Your task to perform on an android device: See recent photos Image 0: 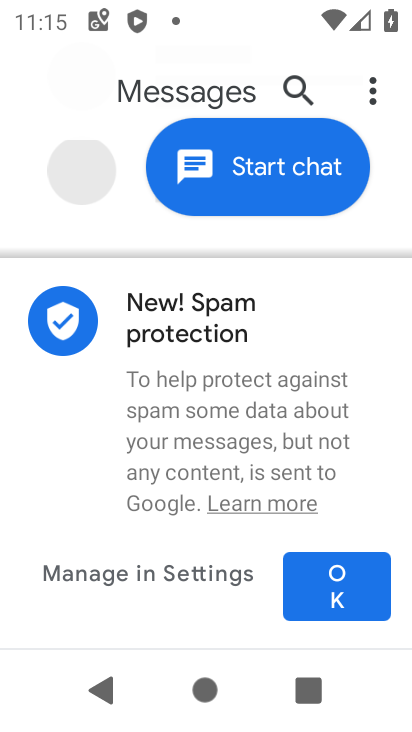
Step 0: press home button
Your task to perform on an android device: See recent photos Image 1: 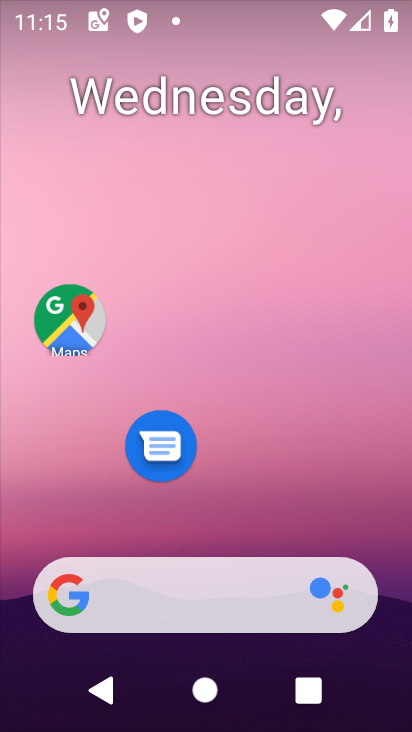
Step 1: drag from (211, 525) to (191, 70)
Your task to perform on an android device: See recent photos Image 2: 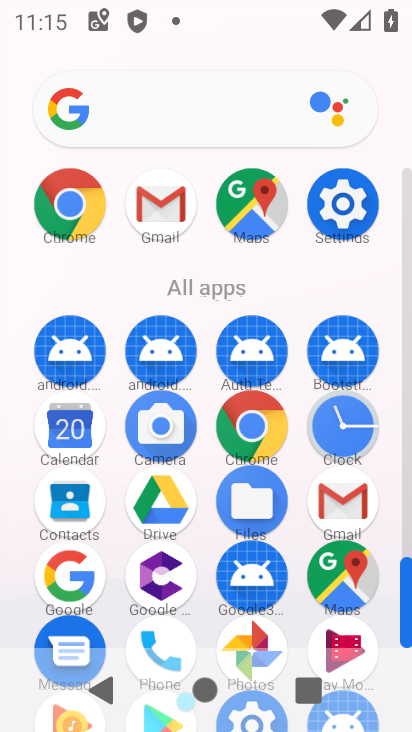
Step 2: drag from (206, 623) to (205, 352)
Your task to perform on an android device: See recent photos Image 3: 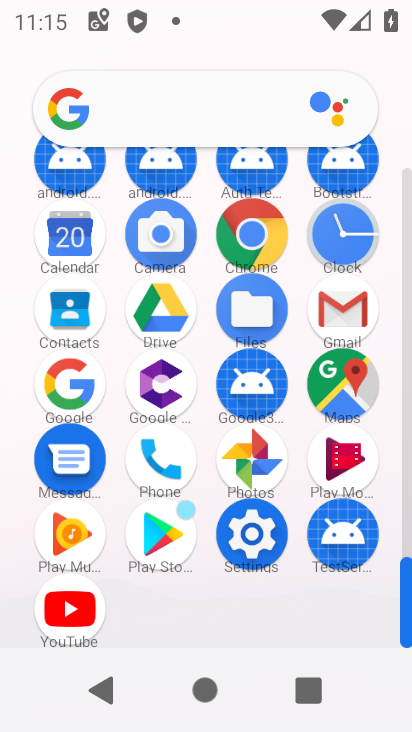
Step 3: click (252, 457)
Your task to perform on an android device: See recent photos Image 4: 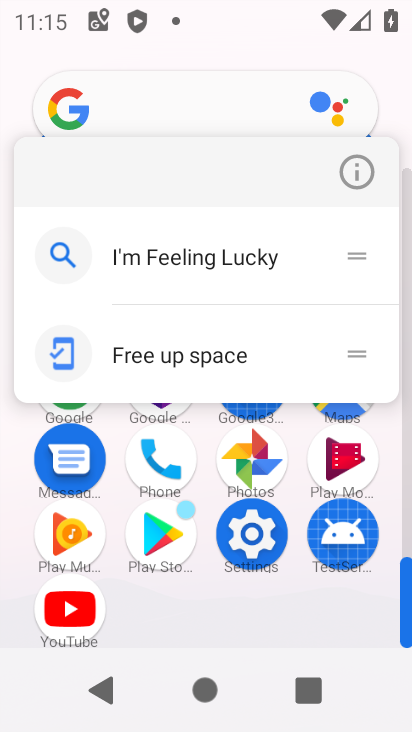
Step 4: click (252, 457)
Your task to perform on an android device: See recent photos Image 5: 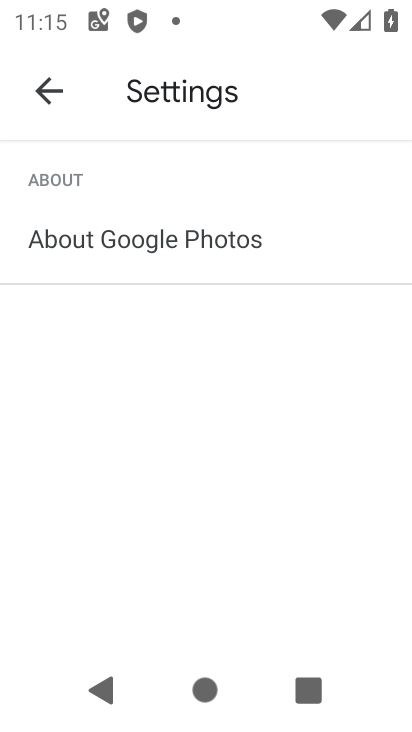
Step 5: press back button
Your task to perform on an android device: See recent photos Image 6: 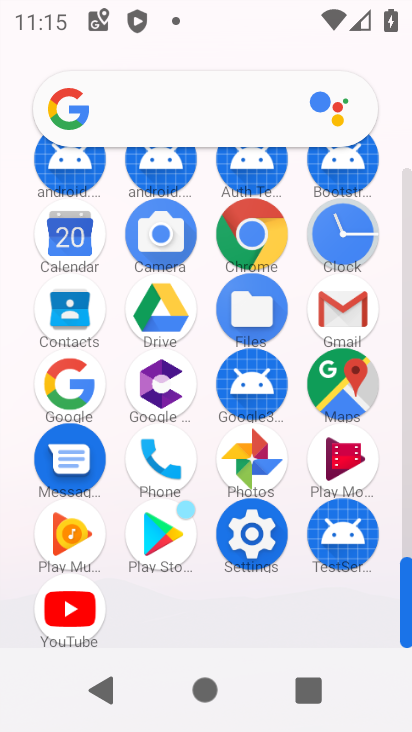
Step 6: click (232, 468)
Your task to perform on an android device: See recent photos Image 7: 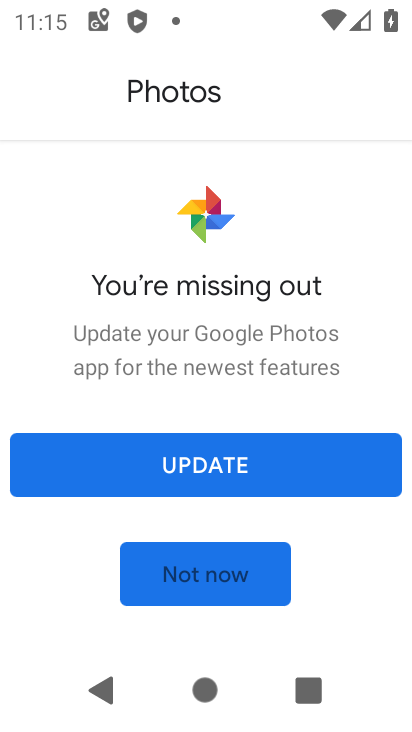
Step 7: click (224, 574)
Your task to perform on an android device: See recent photos Image 8: 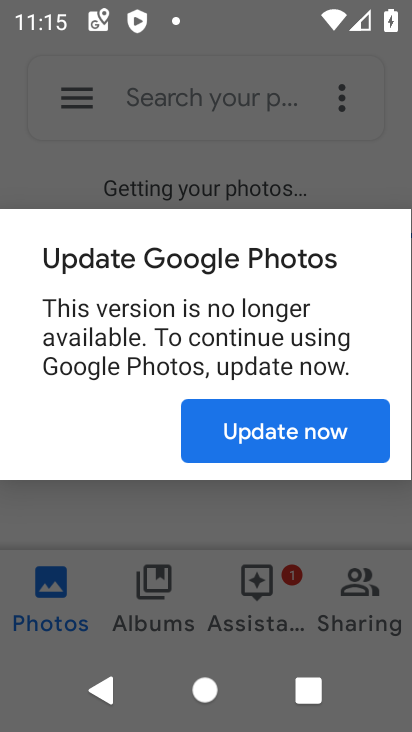
Step 8: click (273, 443)
Your task to perform on an android device: See recent photos Image 9: 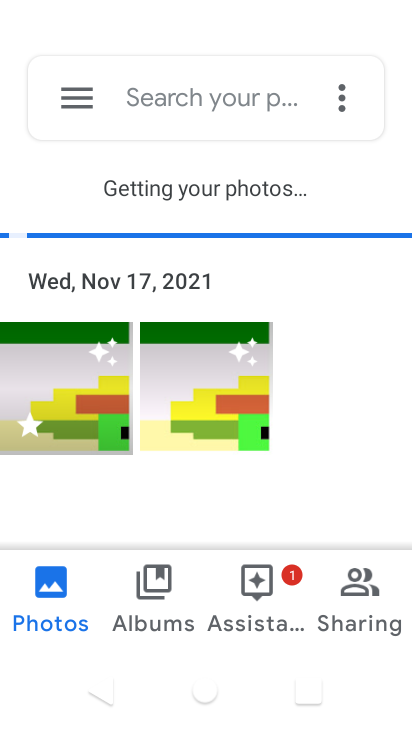
Step 9: drag from (236, 422) to (235, 305)
Your task to perform on an android device: See recent photos Image 10: 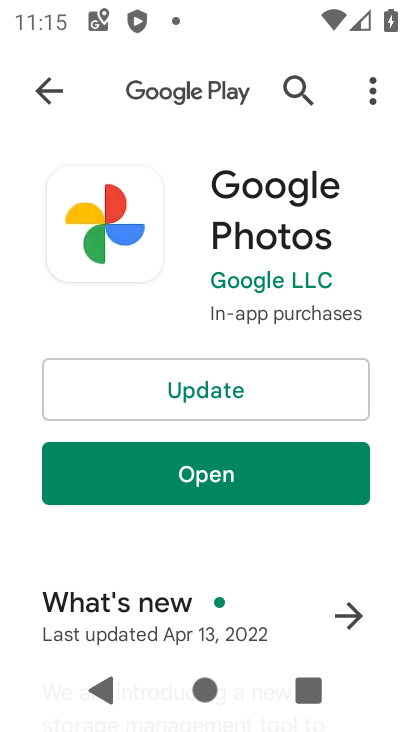
Step 10: click (204, 383)
Your task to perform on an android device: See recent photos Image 11: 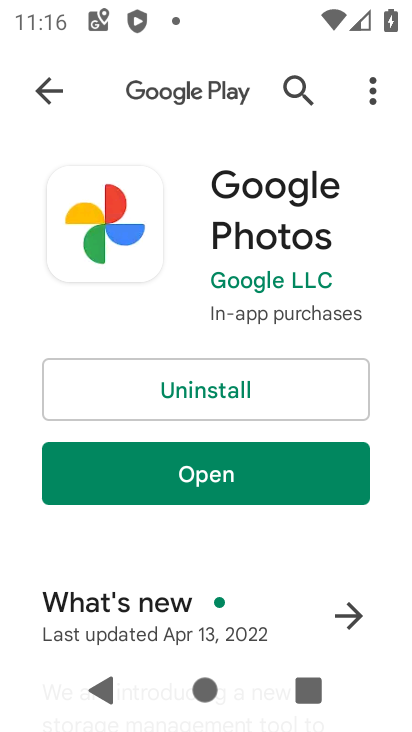
Step 11: click (215, 480)
Your task to perform on an android device: See recent photos Image 12: 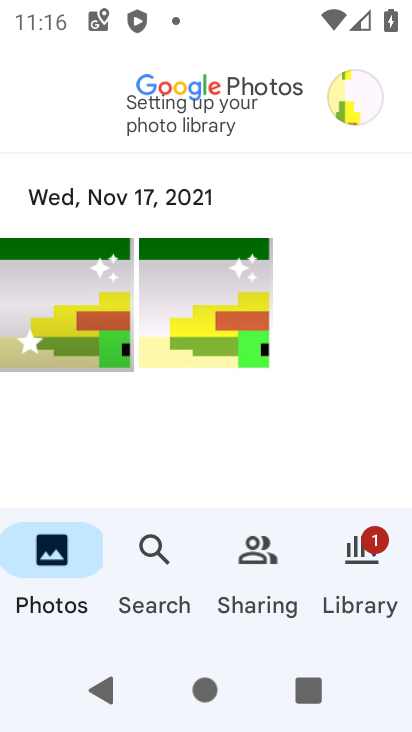
Step 12: task complete